Your task to perform on an android device: uninstall "YouTube Kids" Image 0: 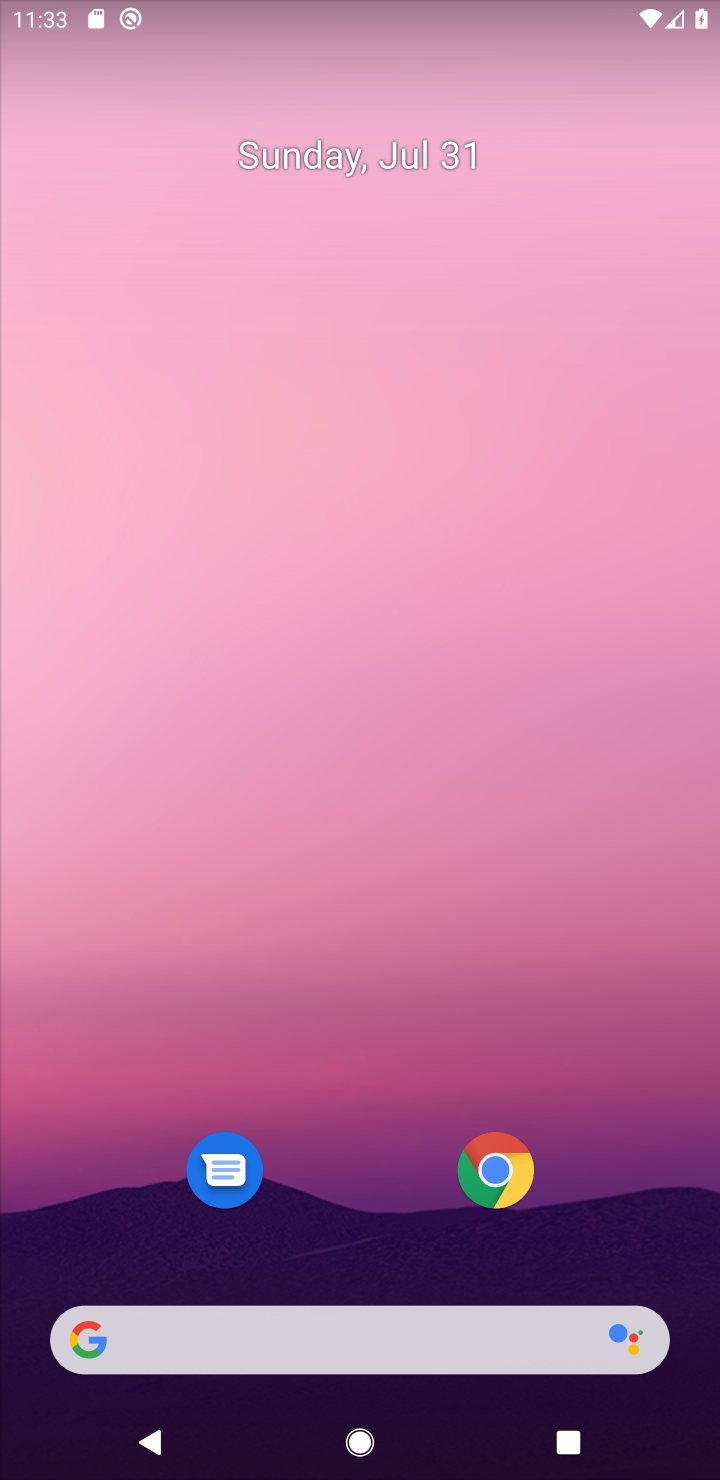
Step 0: drag from (687, 1247) to (265, 108)
Your task to perform on an android device: uninstall "YouTube Kids" Image 1: 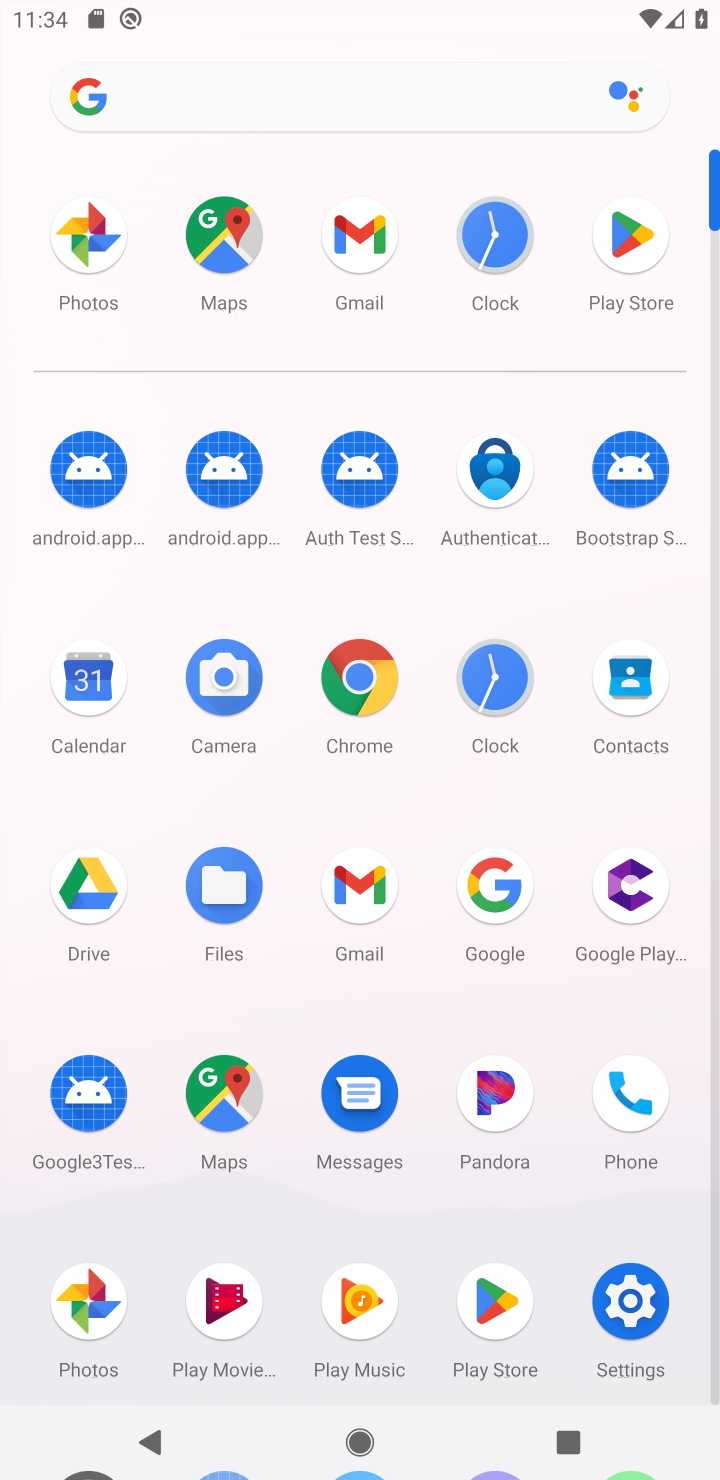
Step 1: click (602, 259)
Your task to perform on an android device: uninstall "YouTube Kids" Image 2: 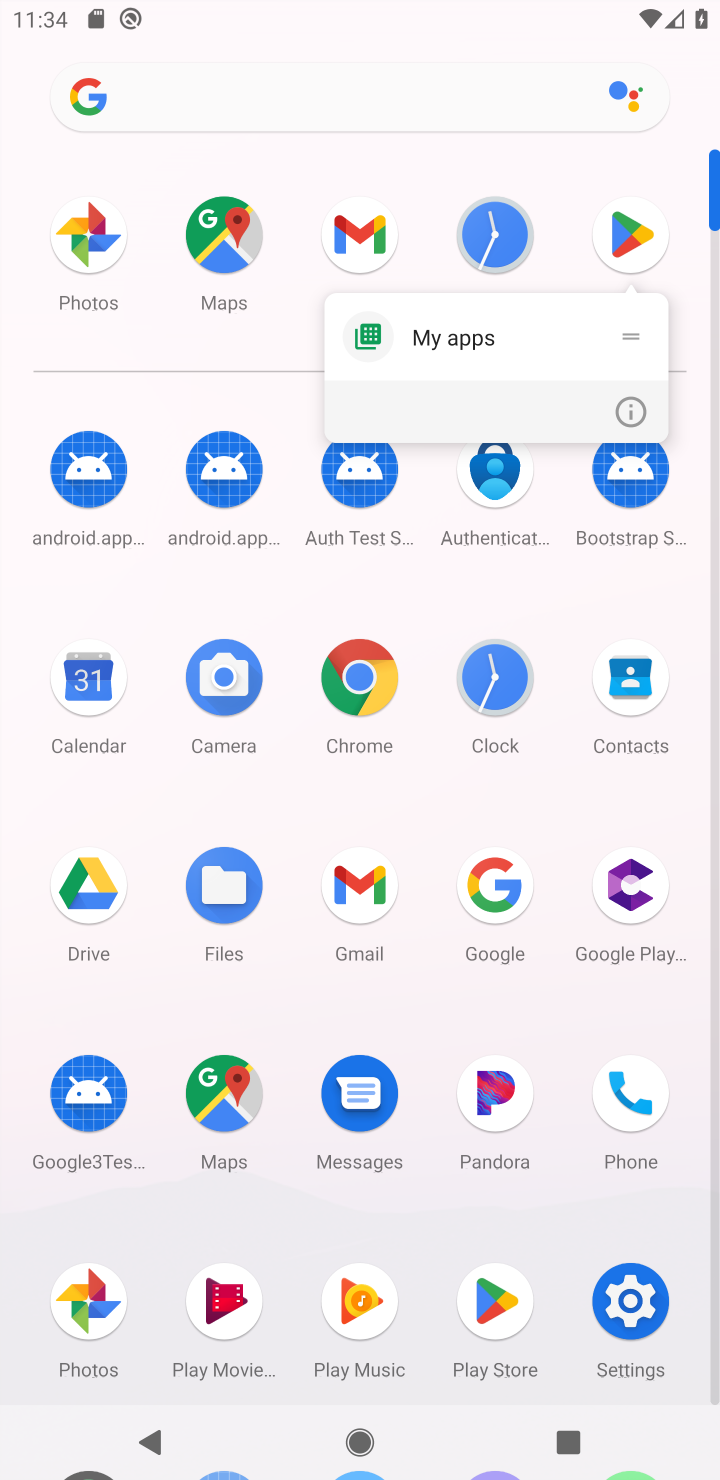
Step 2: click (602, 259)
Your task to perform on an android device: uninstall "YouTube Kids" Image 3: 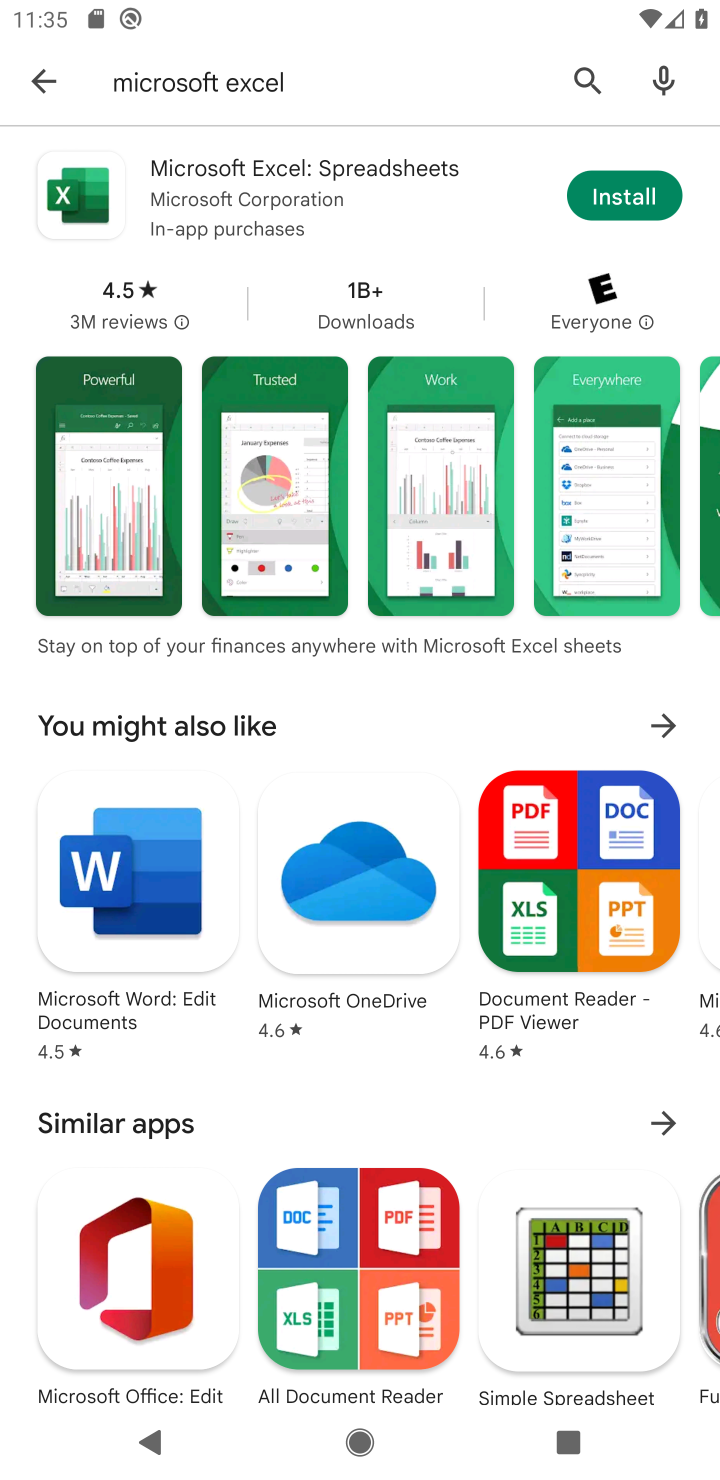
Step 3: press back button
Your task to perform on an android device: uninstall "YouTube Kids" Image 4: 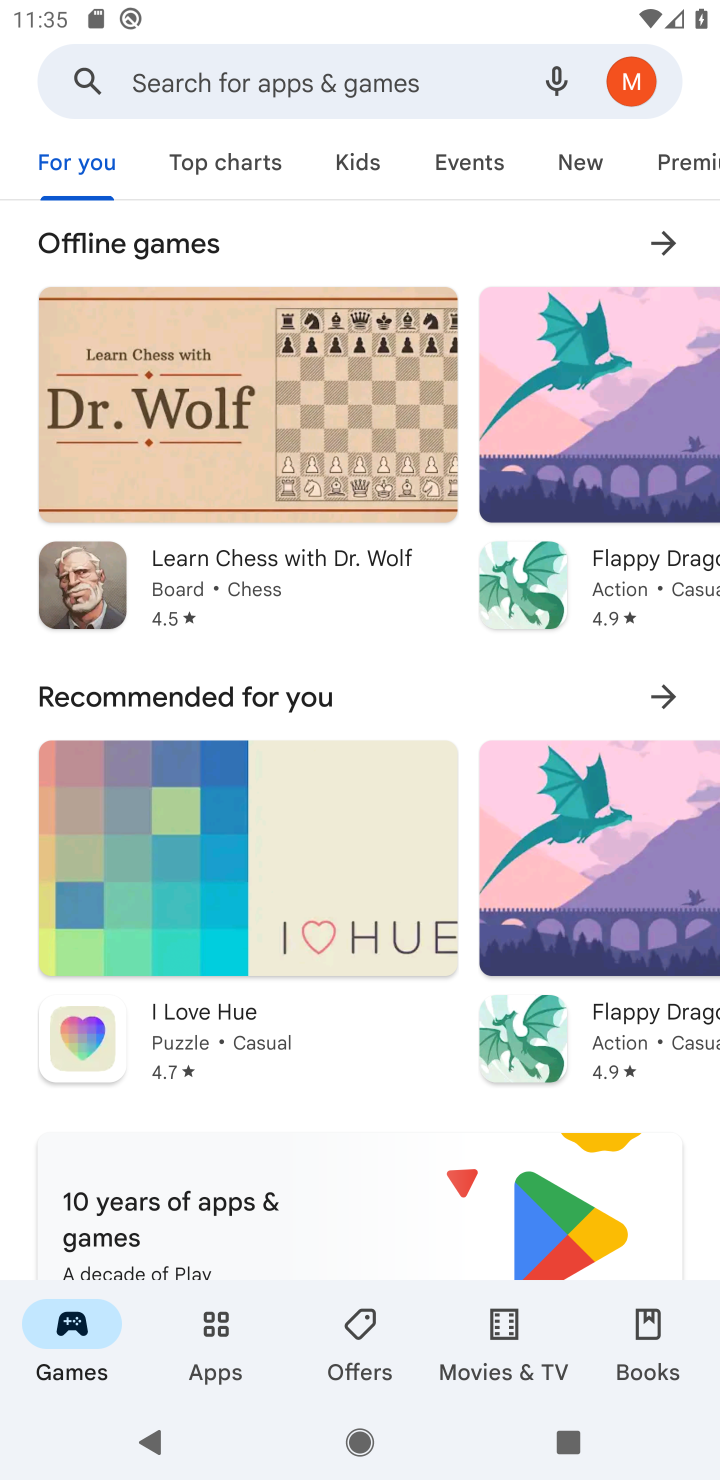
Step 4: click (230, 82)
Your task to perform on an android device: uninstall "YouTube Kids" Image 5: 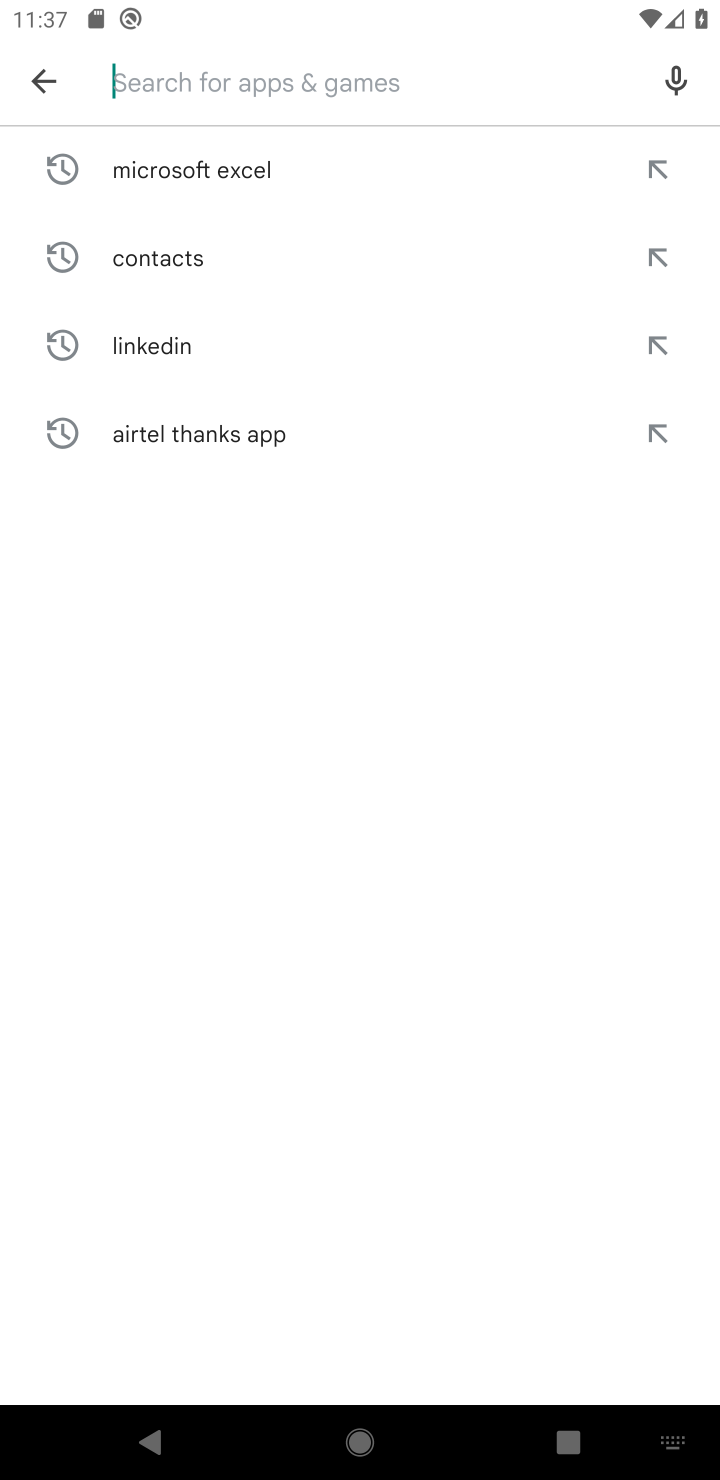
Step 5: type "YouTube Kids"
Your task to perform on an android device: uninstall "YouTube Kids" Image 6: 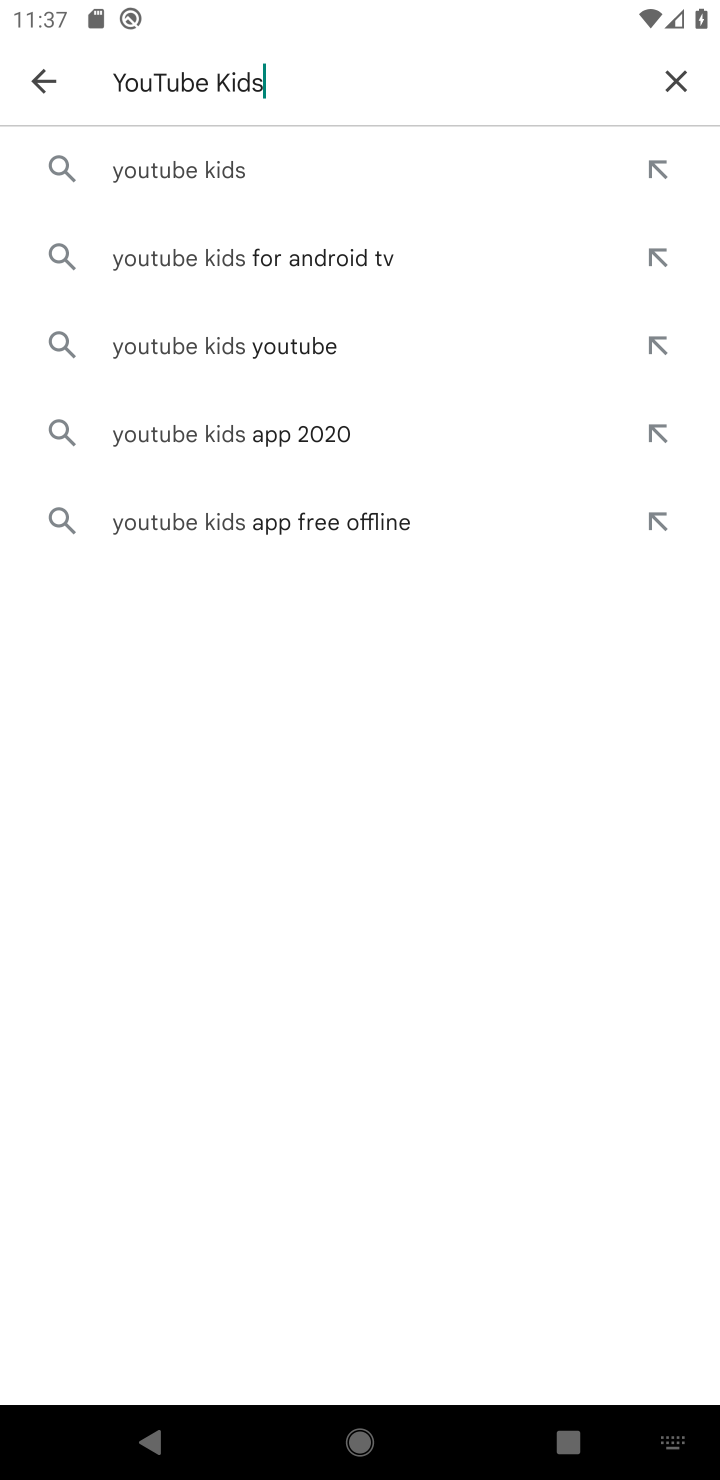
Step 6: click (199, 169)
Your task to perform on an android device: uninstall "YouTube Kids" Image 7: 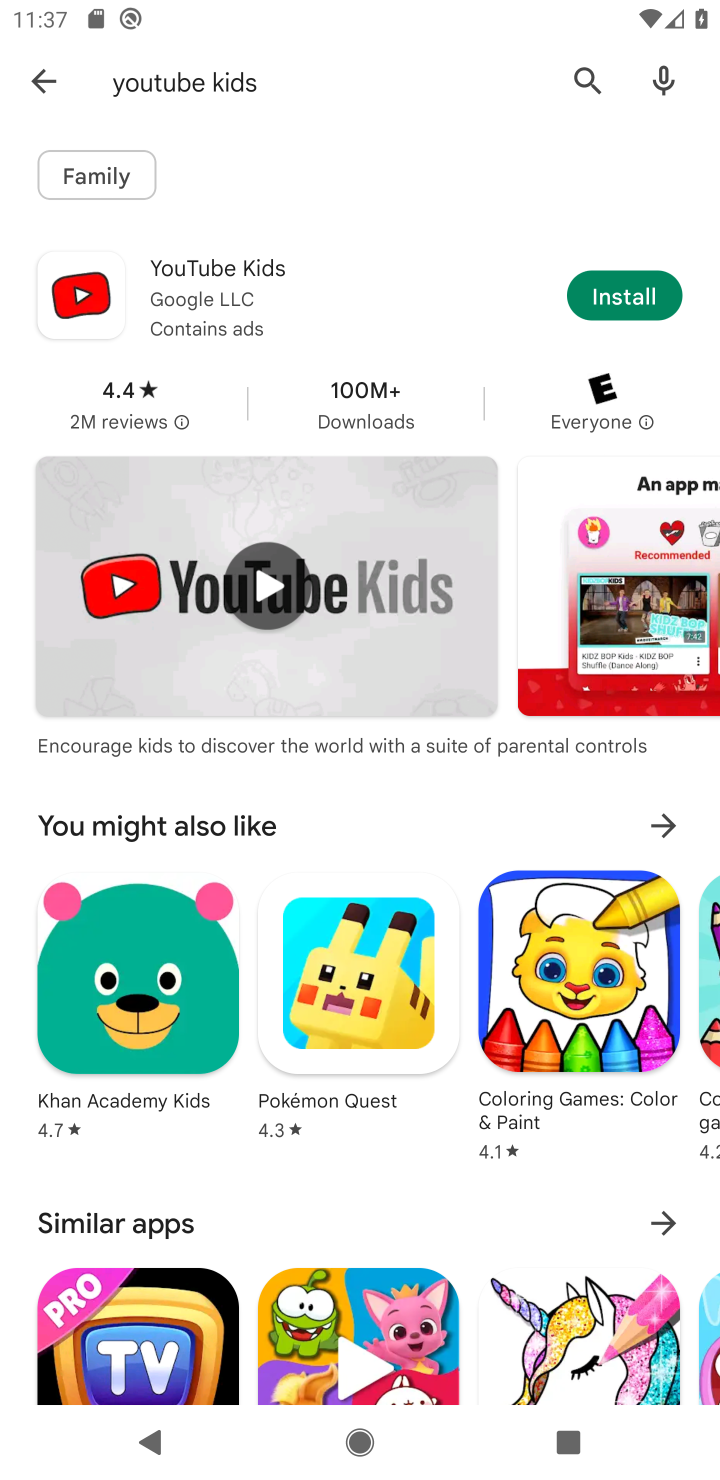
Step 7: task complete